Your task to perform on an android device: change notifications settings Image 0: 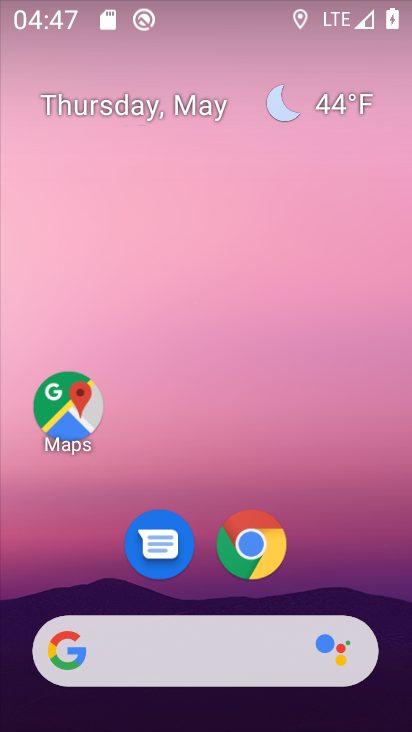
Step 0: drag from (341, 580) to (406, 369)
Your task to perform on an android device: change notifications settings Image 1: 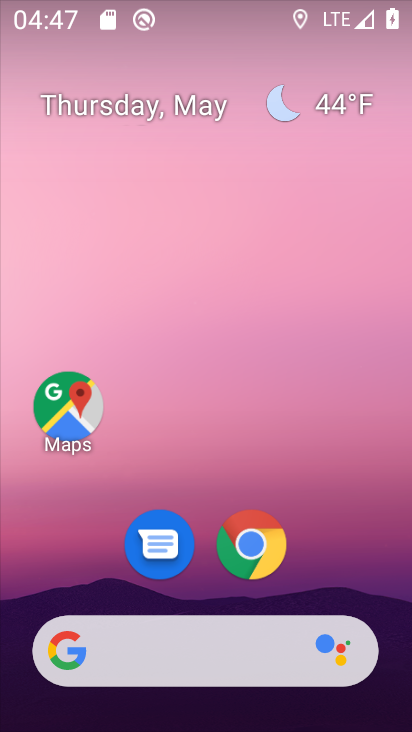
Step 1: drag from (303, 566) to (410, 267)
Your task to perform on an android device: change notifications settings Image 2: 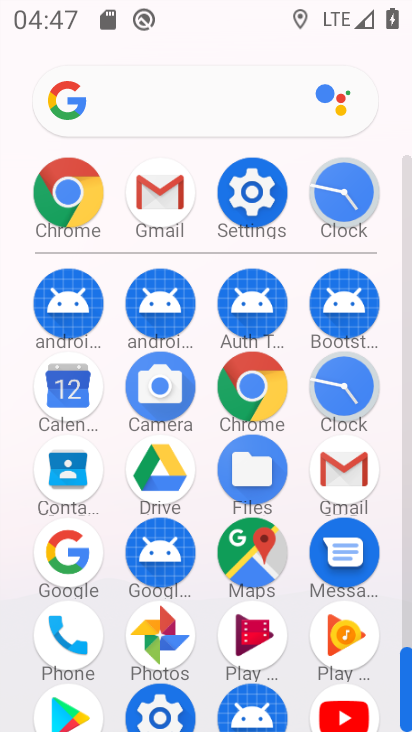
Step 2: click (262, 189)
Your task to perform on an android device: change notifications settings Image 3: 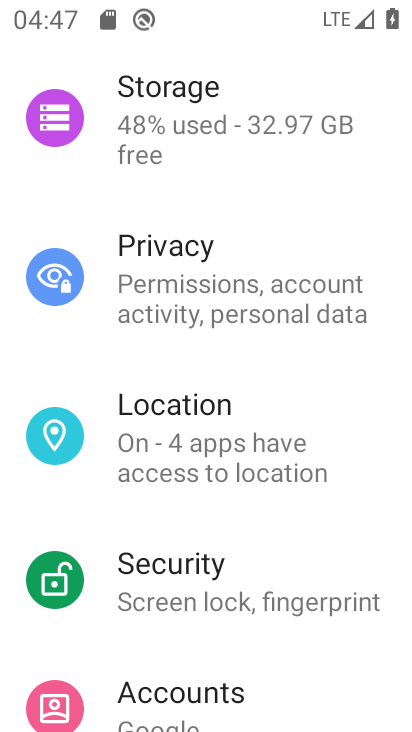
Step 3: drag from (188, 250) to (236, 457)
Your task to perform on an android device: change notifications settings Image 4: 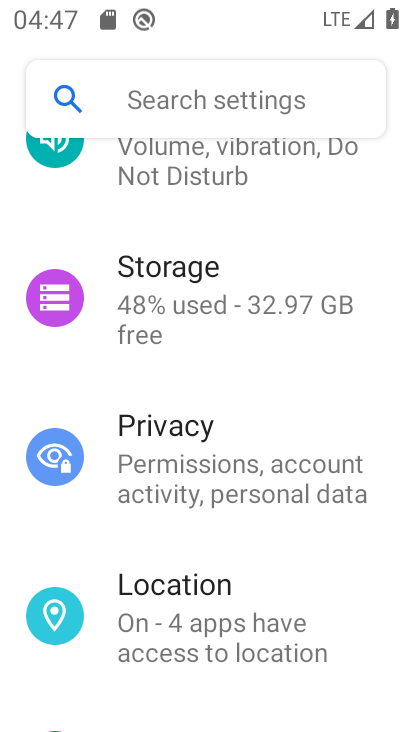
Step 4: drag from (208, 298) to (214, 438)
Your task to perform on an android device: change notifications settings Image 5: 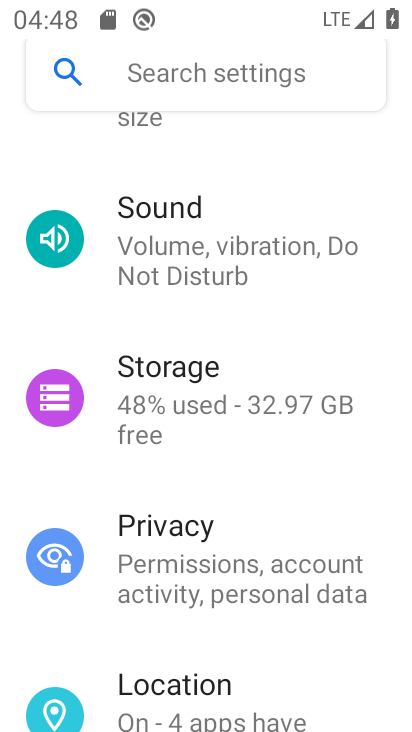
Step 5: drag from (206, 279) to (225, 469)
Your task to perform on an android device: change notifications settings Image 6: 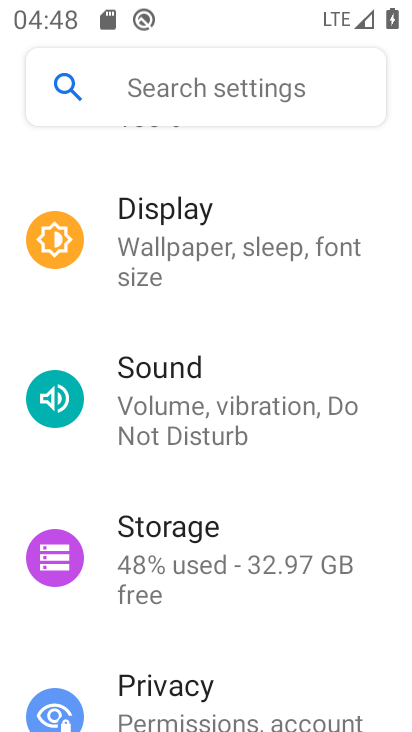
Step 6: drag from (251, 307) to (267, 464)
Your task to perform on an android device: change notifications settings Image 7: 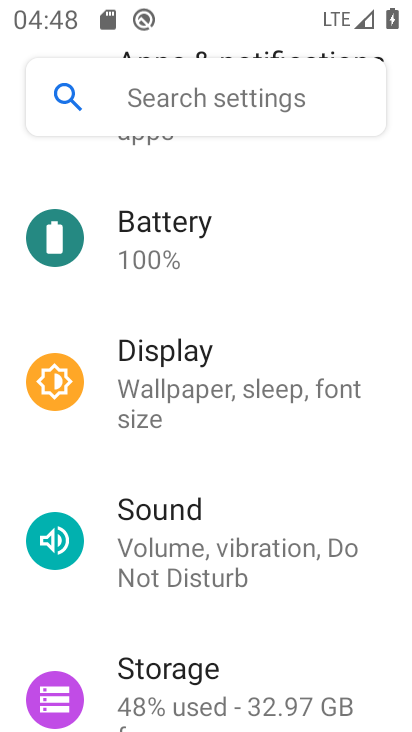
Step 7: drag from (243, 244) to (255, 451)
Your task to perform on an android device: change notifications settings Image 8: 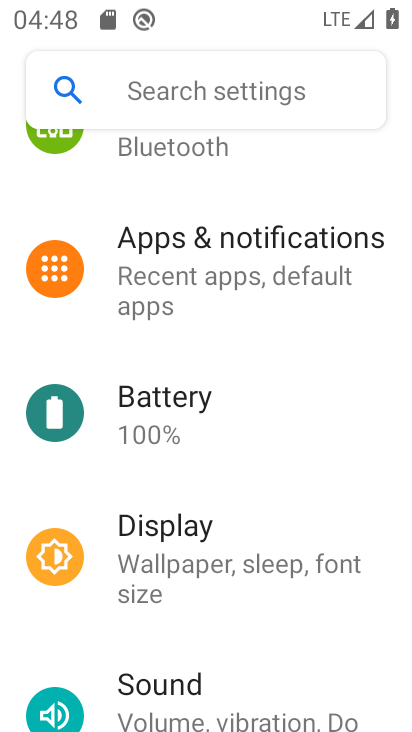
Step 8: click (230, 260)
Your task to perform on an android device: change notifications settings Image 9: 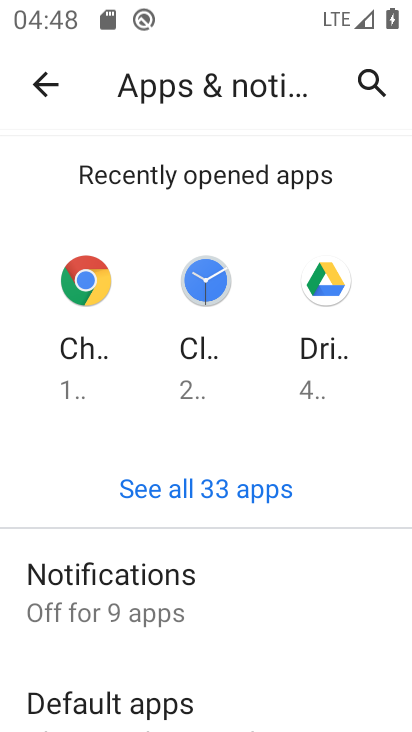
Step 9: drag from (212, 618) to (265, 337)
Your task to perform on an android device: change notifications settings Image 10: 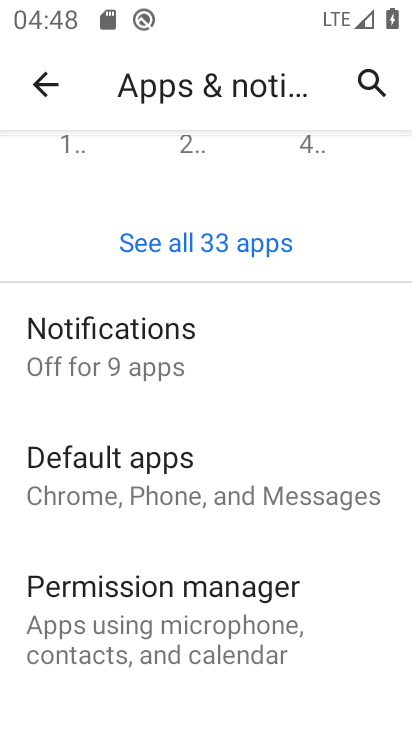
Step 10: click (234, 349)
Your task to perform on an android device: change notifications settings Image 11: 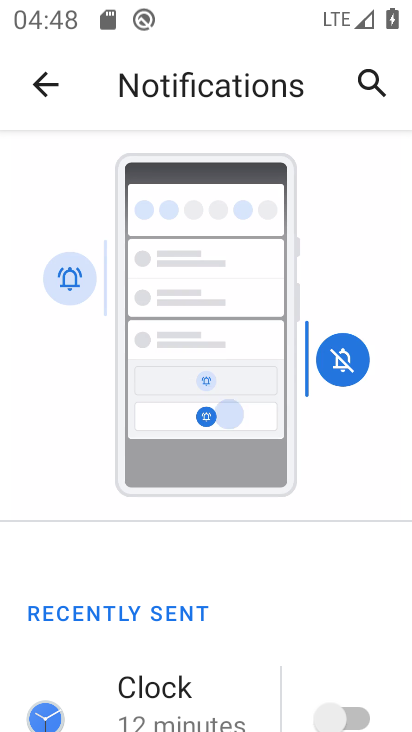
Step 11: drag from (256, 645) to (380, 138)
Your task to perform on an android device: change notifications settings Image 12: 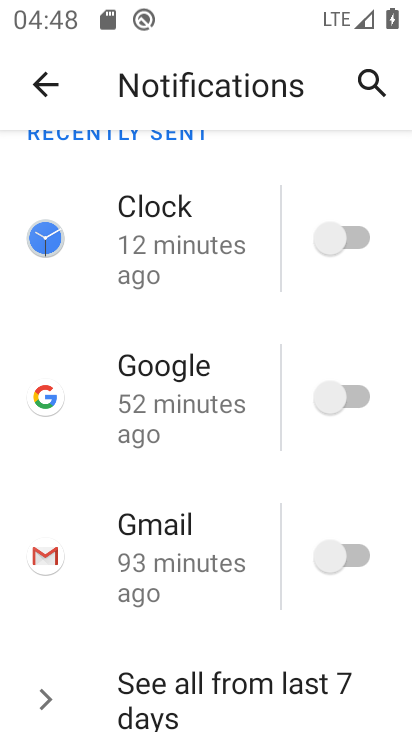
Step 12: click (195, 677)
Your task to perform on an android device: change notifications settings Image 13: 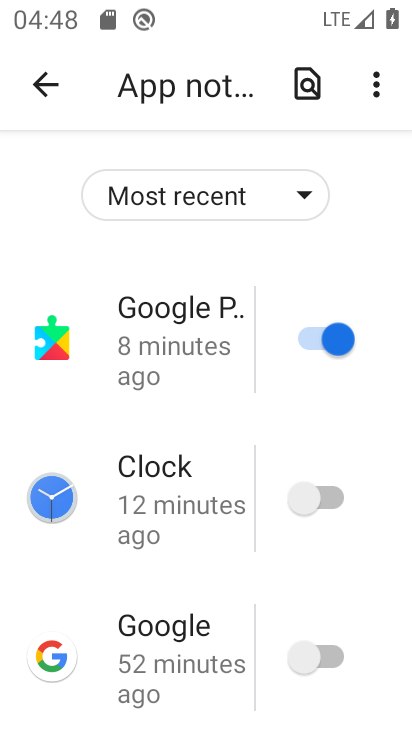
Step 13: click (331, 354)
Your task to perform on an android device: change notifications settings Image 14: 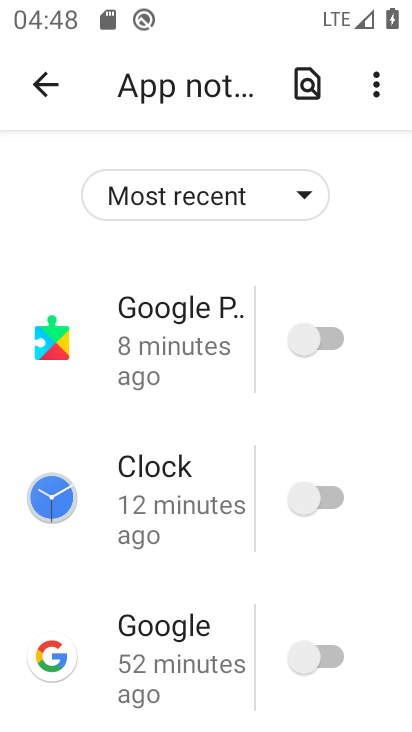
Step 14: click (337, 480)
Your task to perform on an android device: change notifications settings Image 15: 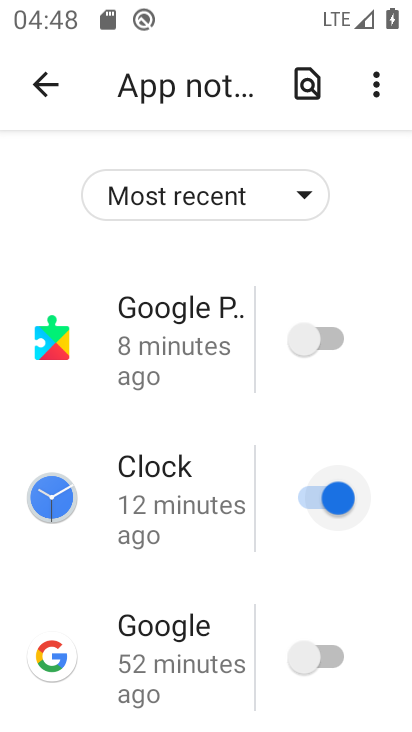
Step 15: click (312, 660)
Your task to perform on an android device: change notifications settings Image 16: 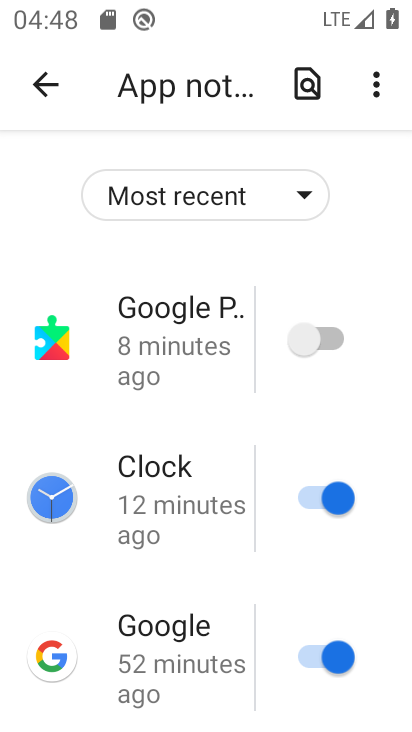
Step 16: drag from (216, 670) to (226, 219)
Your task to perform on an android device: change notifications settings Image 17: 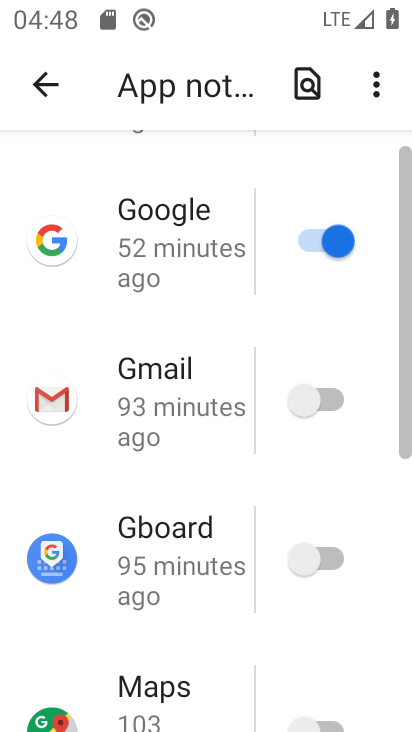
Step 17: click (298, 395)
Your task to perform on an android device: change notifications settings Image 18: 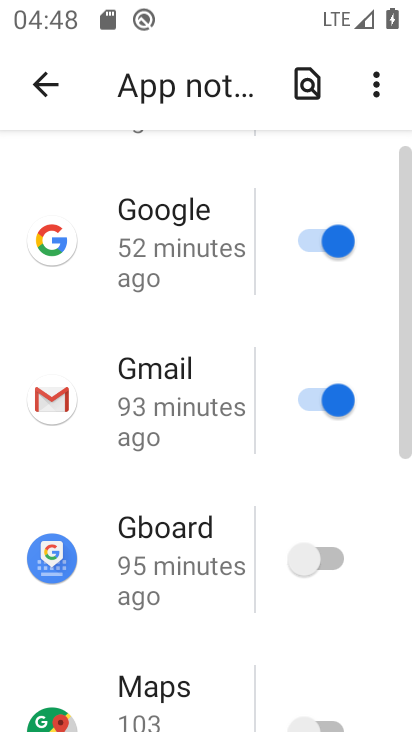
Step 18: click (336, 565)
Your task to perform on an android device: change notifications settings Image 19: 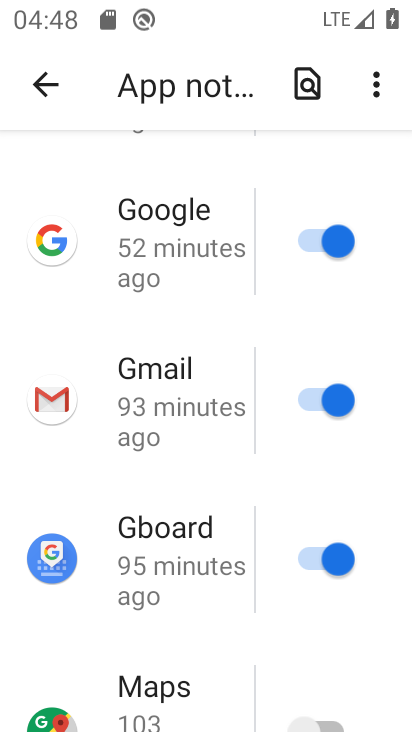
Step 19: drag from (180, 647) to (227, 237)
Your task to perform on an android device: change notifications settings Image 20: 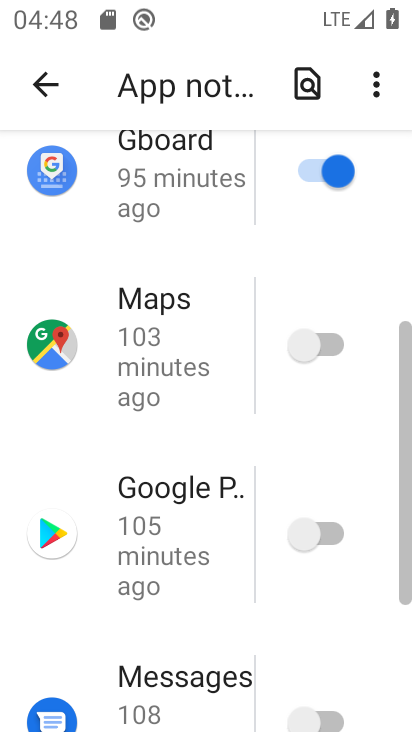
Step 20: click (309, 331)
Your task to perform on an android device: change notifications settings Image 21: 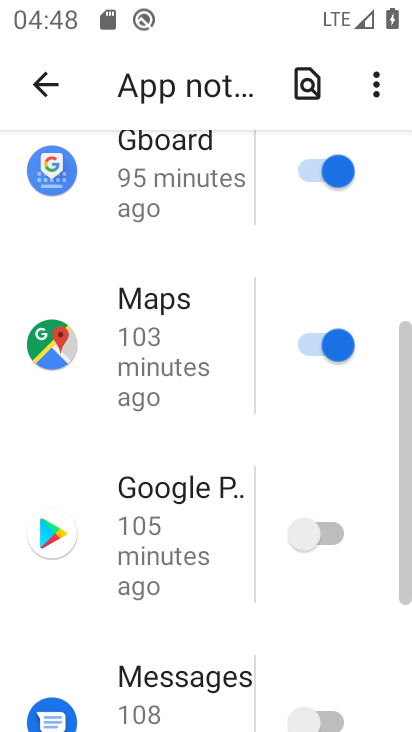
Step 21: click (308, 527)
Your task to perform on an android device: change notifications settings Image 22: 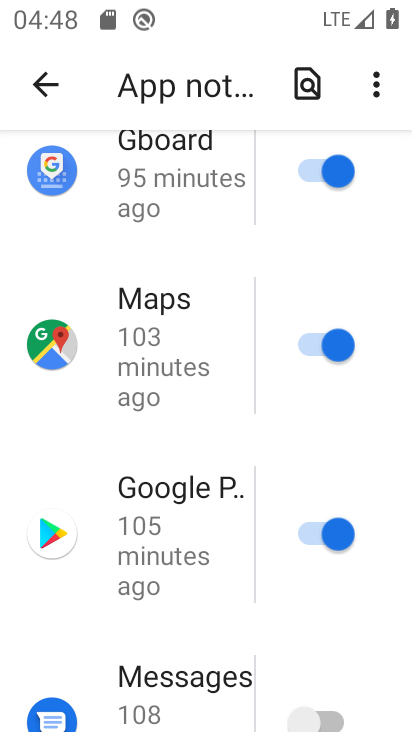
Step 22: drag from (237, 688) to (322, 343)
Your task to perform on an android device: change notifications settings Image 23: 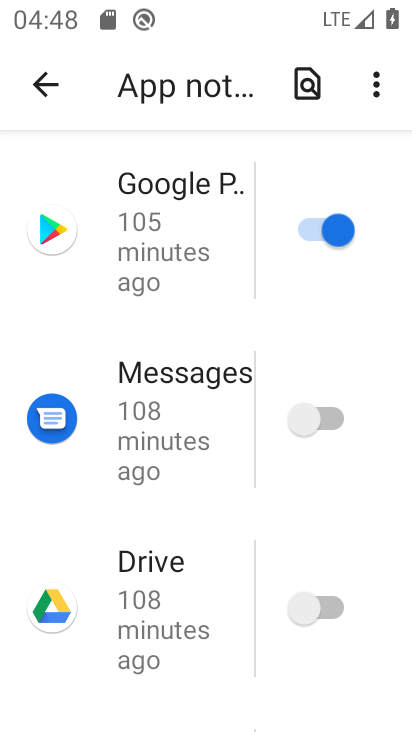
Step 23: click (333, 422)
Your task to perform on an android device: change notifications settings Image 24: 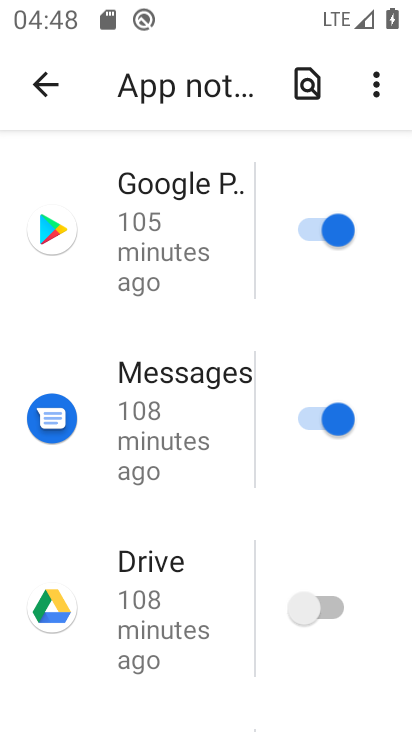
Step 24: click (309, 613)
Your task to perform on an android device: change notifications settings Image 25: 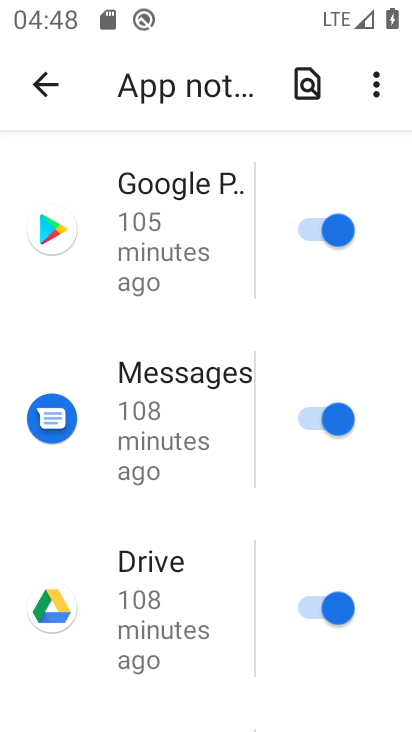
Step 25: drag from (157, 629) to (231, 315)
Your task to perform on an android device: change notifications settings Image 26: 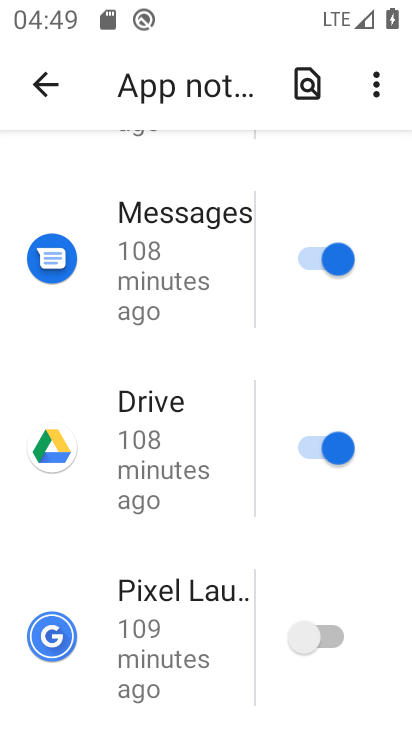
Step 26: click (282, 646)
Your task to perform on an android device: change notifications settings Image 27: 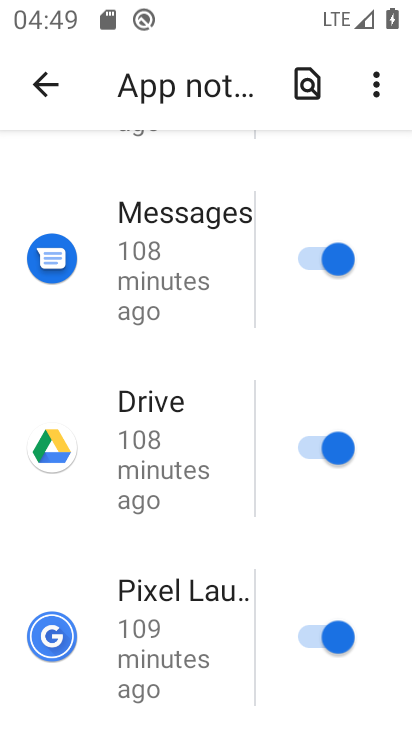
Step 27: drag from (132, 674) to (193, 287)
Your task to perform on an android device: change notifications settings Image 28: 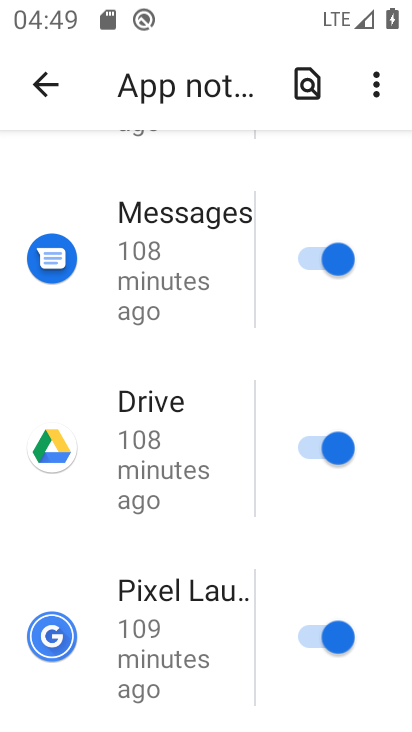
Step 28: click (21, 81)
Your task to perform on an android device: change notifications settings Image 29: 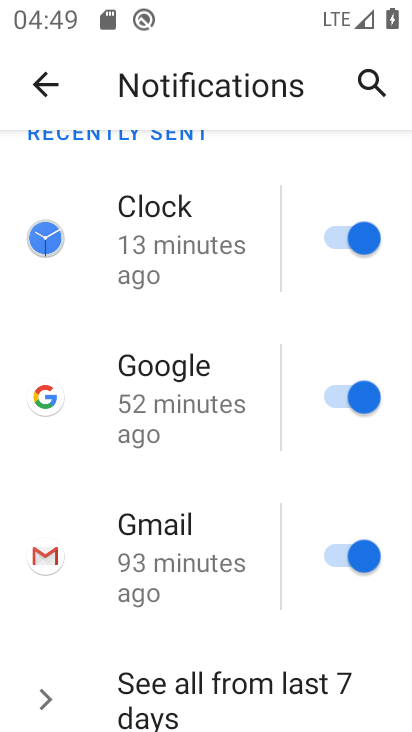
Step 29: drag from (188, 630) to (300, 188)
Your task to perform on an android device: change notifications settings Image 30: 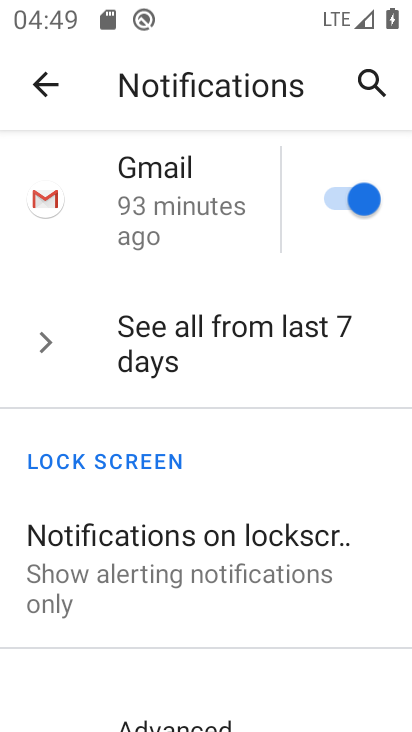
Step 30: click (216, 589)
Your task to perform on an android device: change notifications settings Image 31: 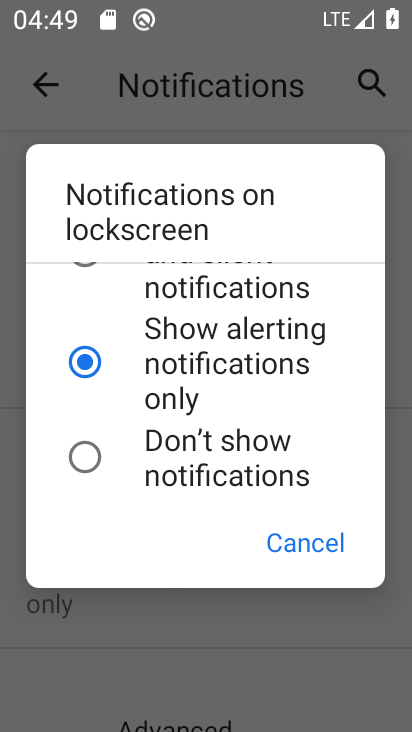
Step 31: click (202, 442)
Your task to perform on an android device: change notifications settings Image 32: 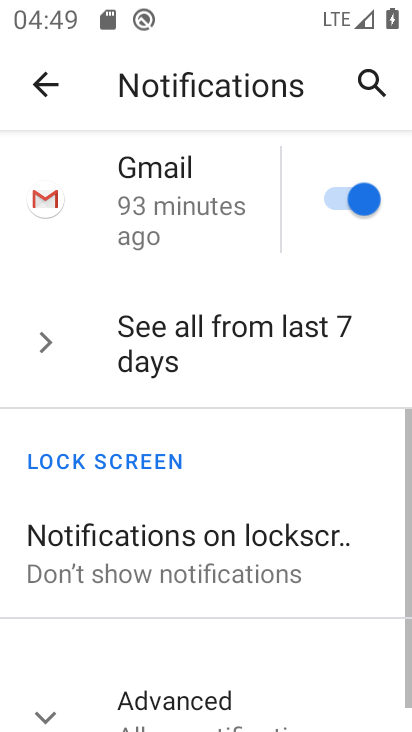
Step 32: drag from (220, 620) to (308, 180)
Your task to perform on an android device: change notifications settings Image 33: 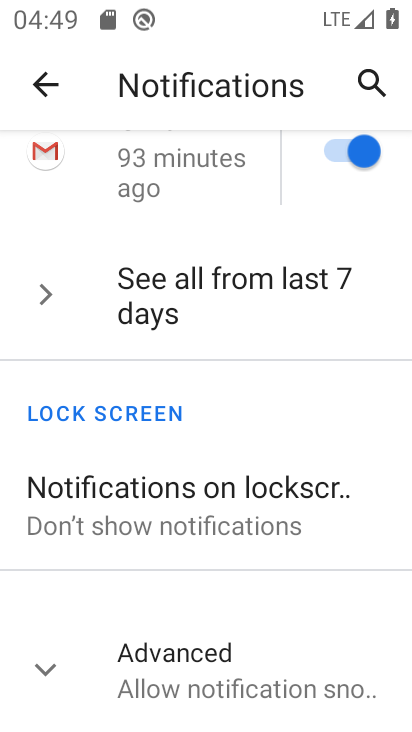
Step 33: click (114, 652)
Your task to perform on an android device: change notifications settings Image 34: 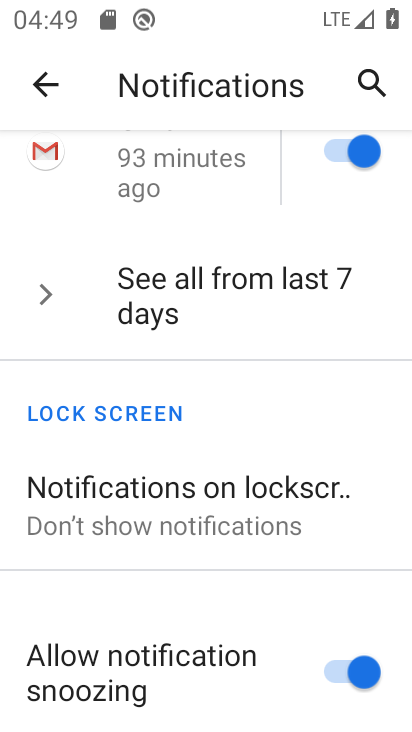
Step 34: drag from (124, 685) to (267, 295)
Your task to perform on an android device: change notifications settings Image 35: 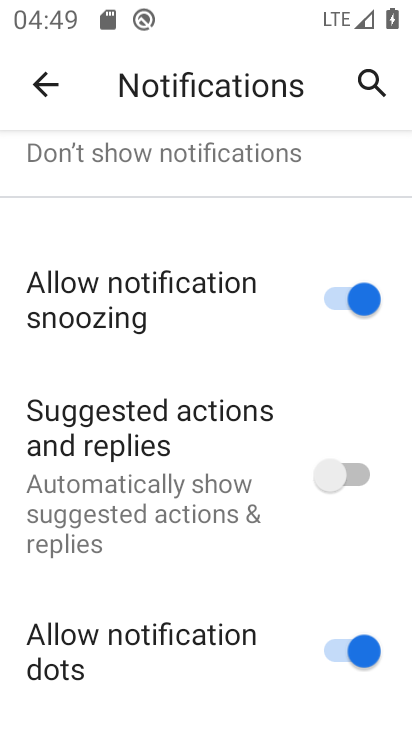
Step 35: click (343, 296)
Your task to perform on an android device: change notifications settings Image 36: 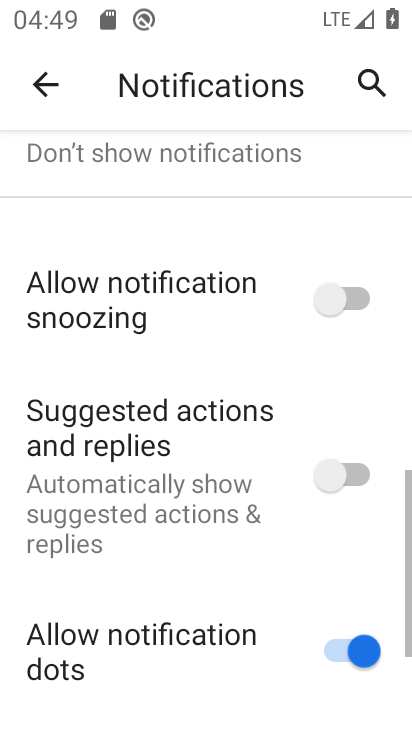
Step 36: click (350, 455)
Your task to perform on an android device: change notifications settings Image 37: 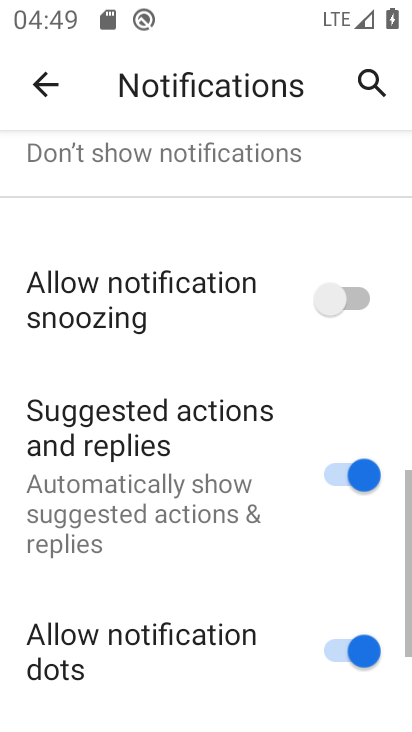
Step 37: click (338, 640)
Your task to perform on an android device: change notifications settings Image 38: 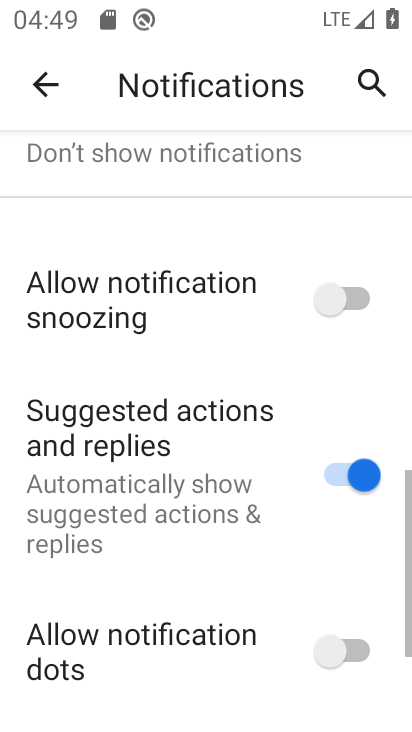
Step 38: task complete